Your task to perform on an android device: Open accessibility settings Image 0: 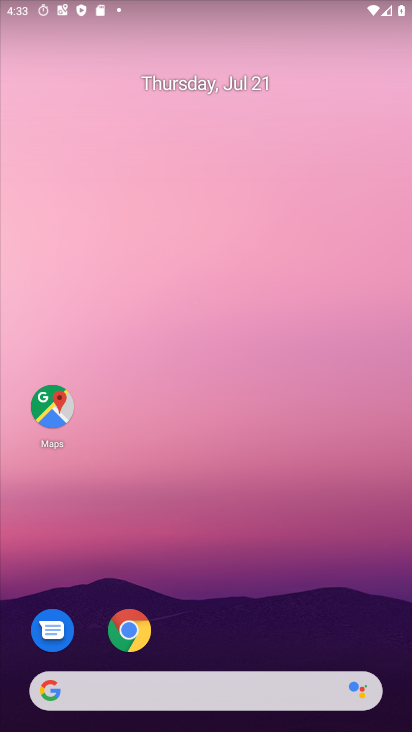
Step 0: drag from (237, 699) to (326, 402)
Your task to perform on an android device: Open accessibility settings Image 1: 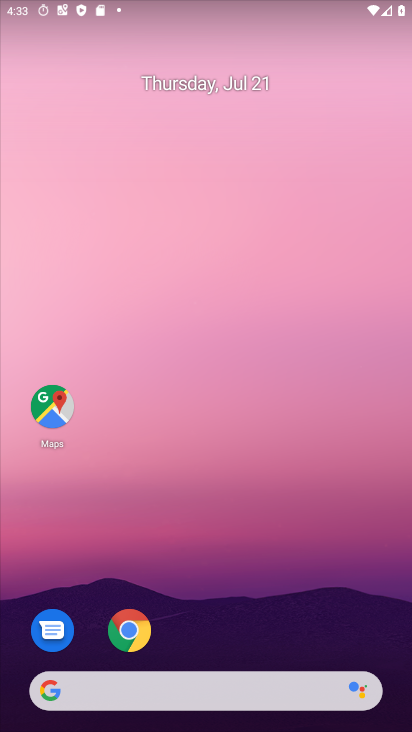
Step 1: drag from (194, 686) to (344, 49)
Your task to perform on an android device: Open accessibility settings Image 2: 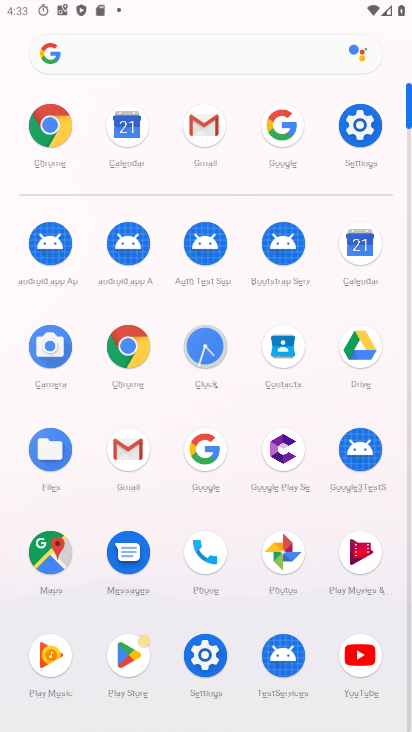
Step 2: click (361, 124)
Your task to perform on an android device: Open accessibility settings Image 3: 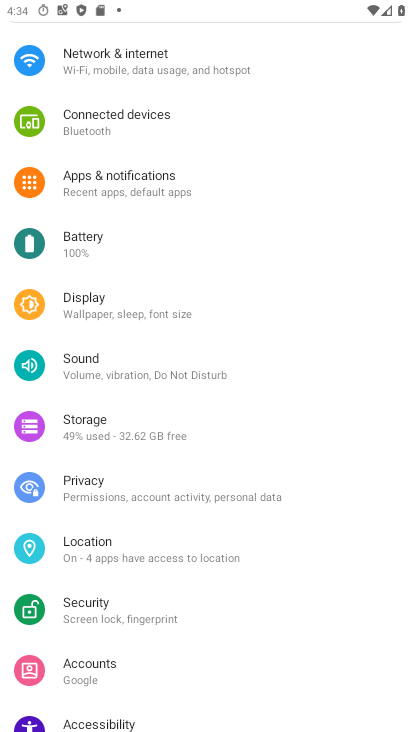
Step 3: click (111, 721)
Your task to perform on an android device: Open accessibility settings Image 4: 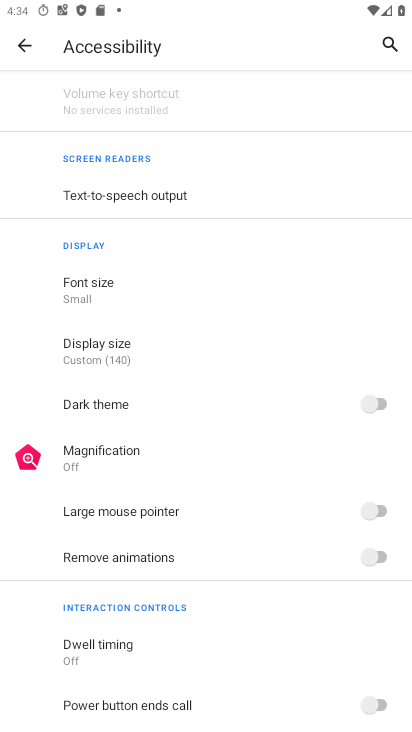
Step 4: task complete